Your task to perform on an android device: find snoozed emails in the gmail app Image 0: 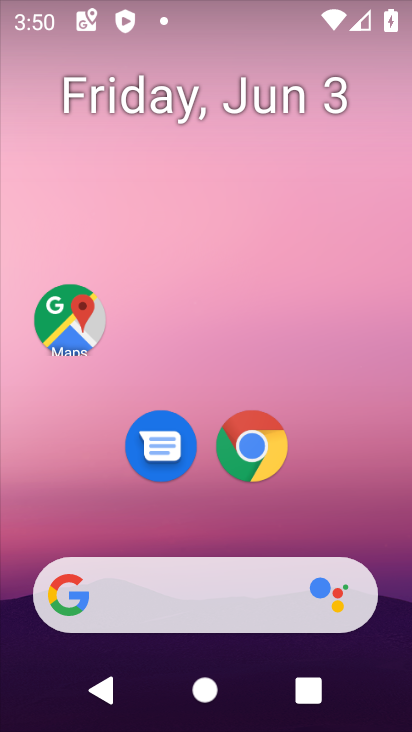
Step 0: task complete